Your task to perform on an android device: Search for Italian restaurants on Maps Image 0: 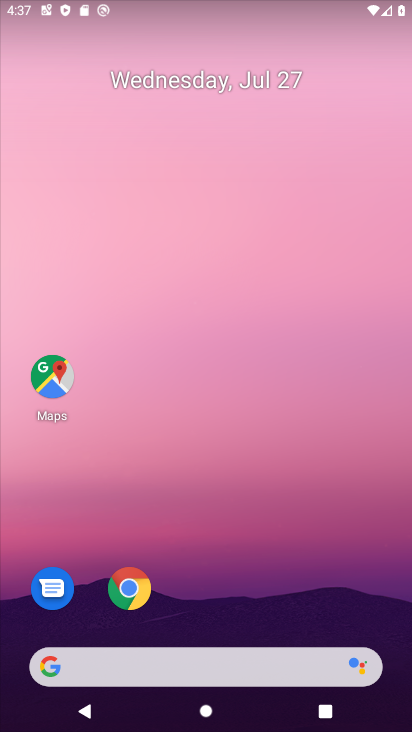
Step 0: drag from (240, 461) to (240, 121)
Your task to perform on an android device: Search for Italian restaurants on Maps Image 1: 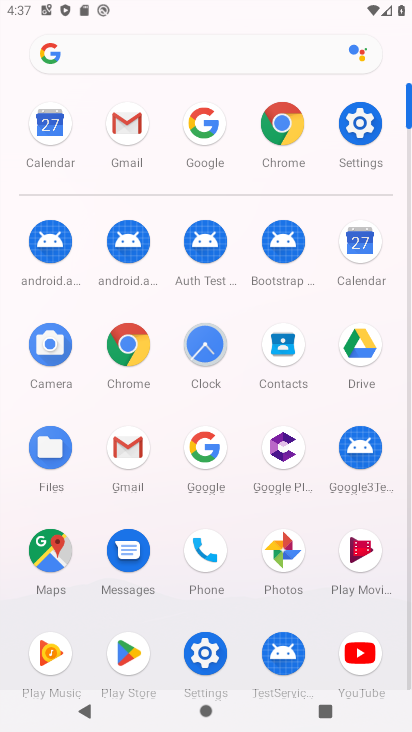
Step 1: click (51, 543)
Your task to perform on an android device: Search for Italian restaurants on Maps Image 2: 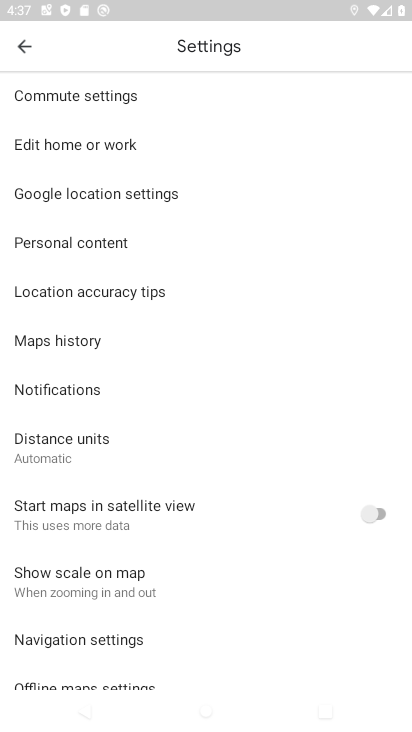
Step 2: click (25, 47)
Your task to perform on an android device: Search for Italian restaurants on Maps Image 3: 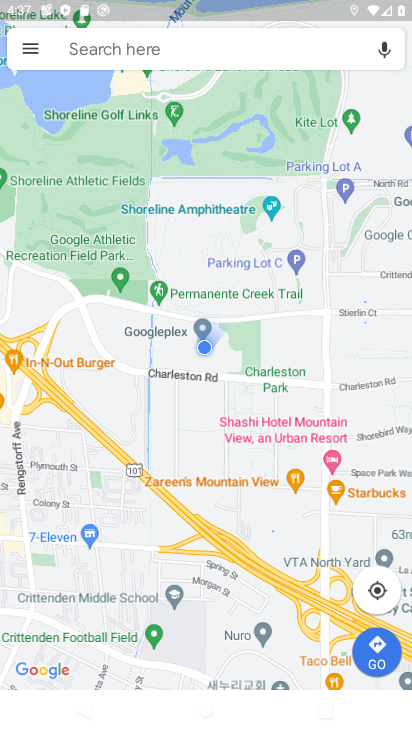
Step 3: click (177, 45)
Your task to perform on an android device: Search for Italian restaurants on Maps Image 4: 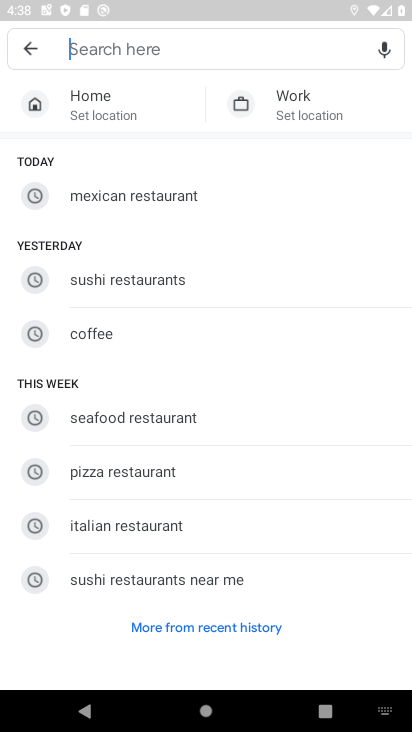
Step 4: type "italian restaurans"
Your task to perform on an android device: Search for Italian restaurants on Maps Image 5: 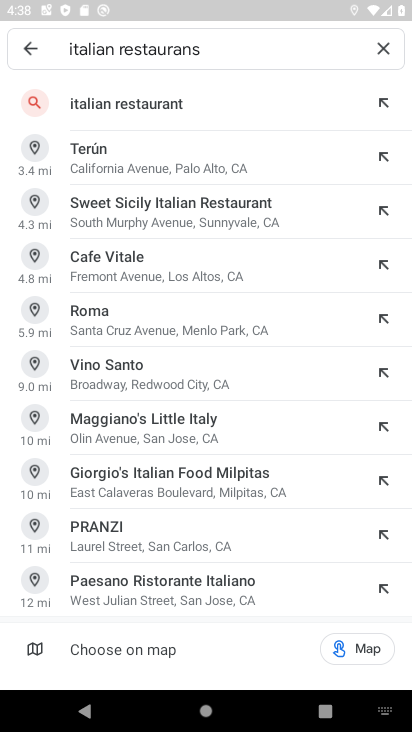
Step 5: click (123, 104)
Your task to perform on an android device: Search for Italian restaurants on Maps Image 6: 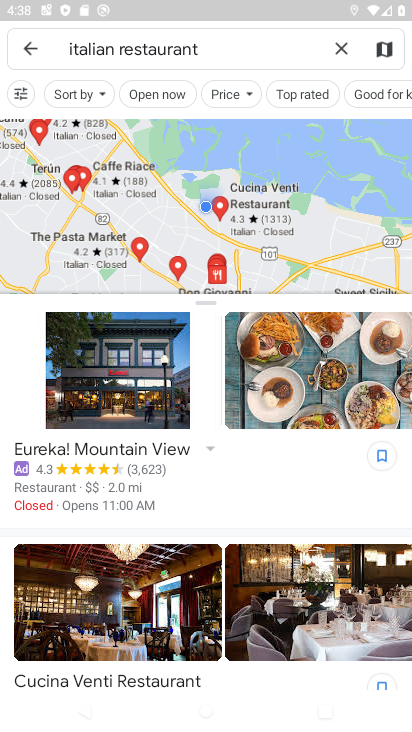
Step 6: task complete